Your task to perform on an android device: star an email in the gmail app Image 0: 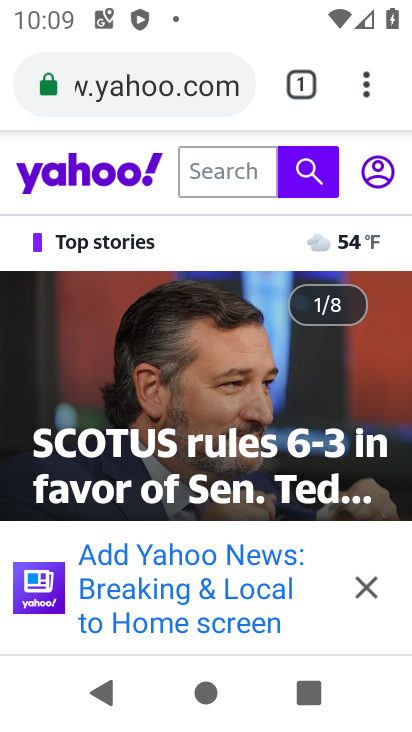
Step 0: press home button
Your task to perform on an android device: star an email in the gmail app Image 1: 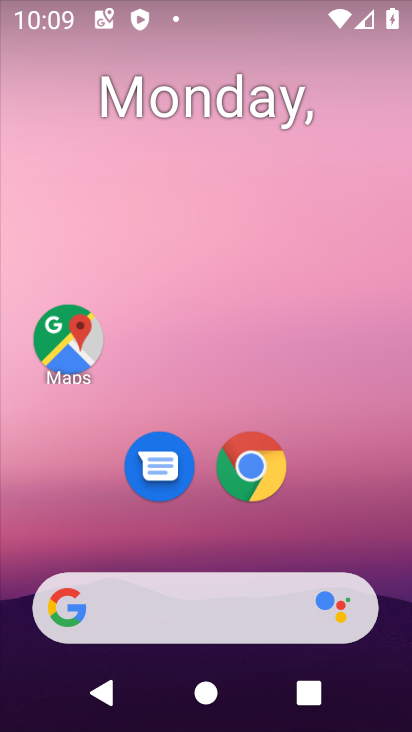
Step 1: drag from (197, 537) to (268, 173)
Your task to perform on an android device: star an email in the gmail app Image 2: 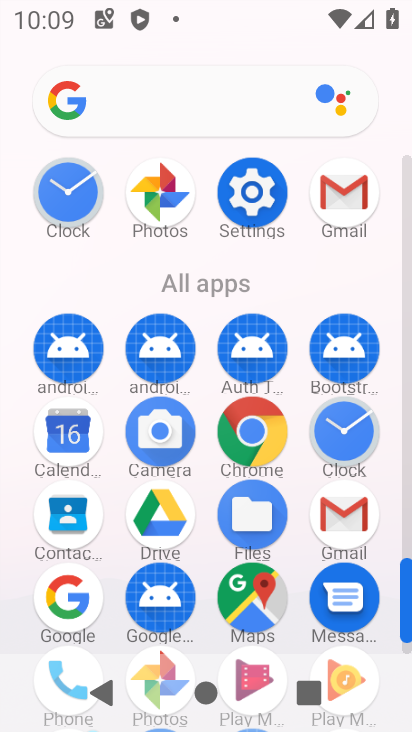
Step 2: click (348, 515)
Your task to perform on an android device: star an email in the gmail app Image 3: 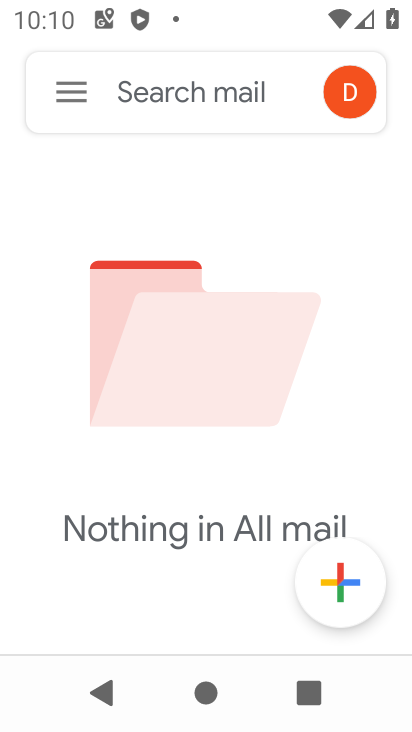
Step 3: task complete